Your task to perform on an android device: Open the Play Movies app and select the watchlist tab. Image 0: 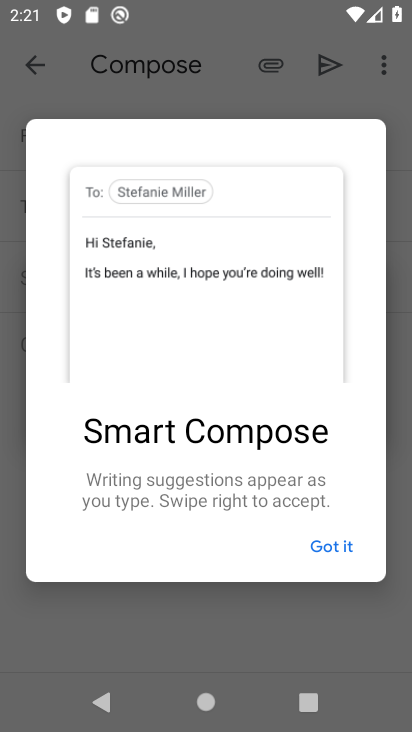
Step 0: press back button
Your task to perform on an android device: Open the Play Movies app and select the watchlist tab. Image 1: 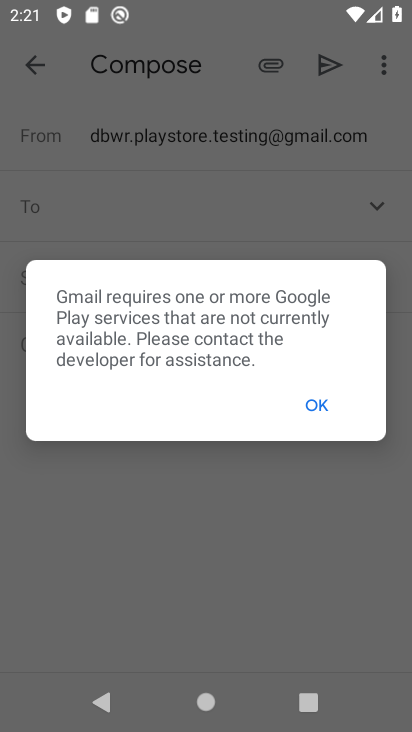
Step 1: press back button
Your task to perform on an android device: Open the Play Movies app and select the watchlist tab. Image 2: 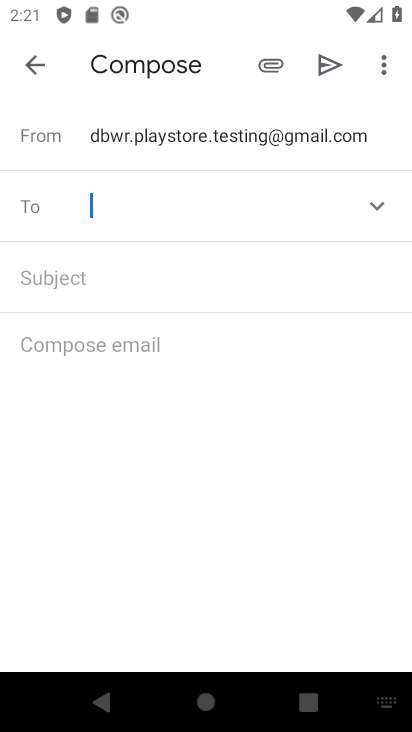
Step 2: press back button
Your task to perform on an android device: Open the Play Movies app and select the watchlist tab. Image 3: 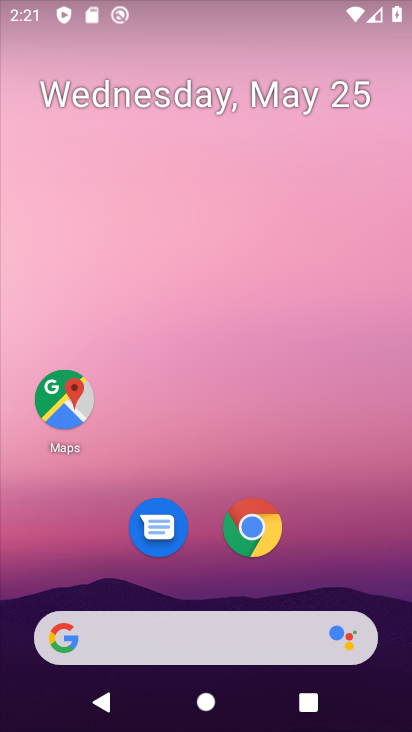
Step 3: drag from (279, 593) to (352, 0)
Your task to perform on an android device: Open the Play Movies app and select the watchlist tab. Image 4: 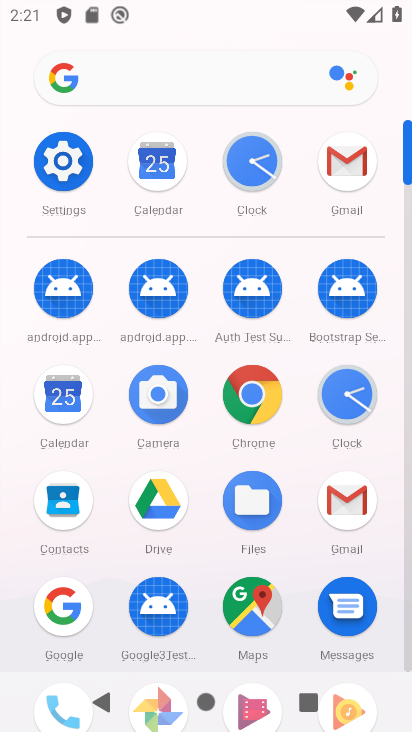
Step 4: drag from (231, 587) to (287, 86)
Your task to perform on an android device: Open the Play Movies app and select the watchlist tab. Image 5: 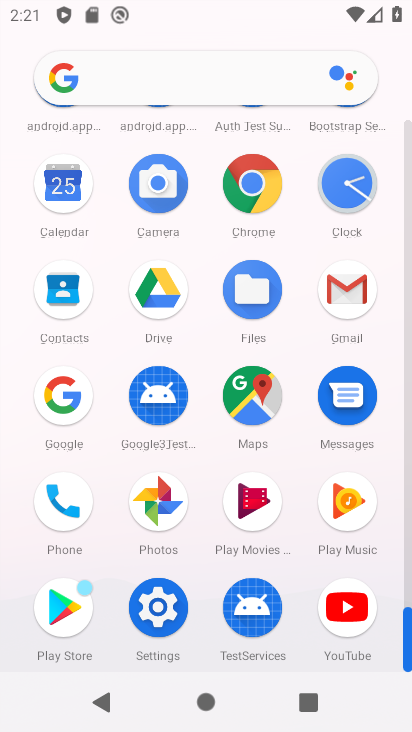
Step 5: click (246, 505)
Your task to perform on an android device: Open the Play Movies app and select the watchlist tab. Image 6: 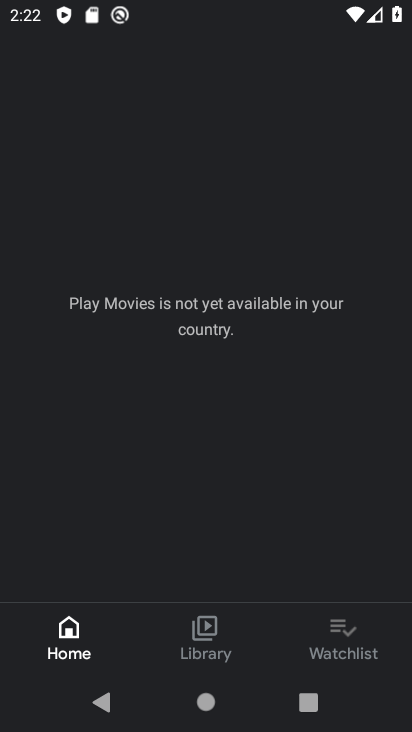
Step 6: click (347, 640)
Your task to perform on an android device: Open the Play Movies app and select the watchlist tab. Image 7: 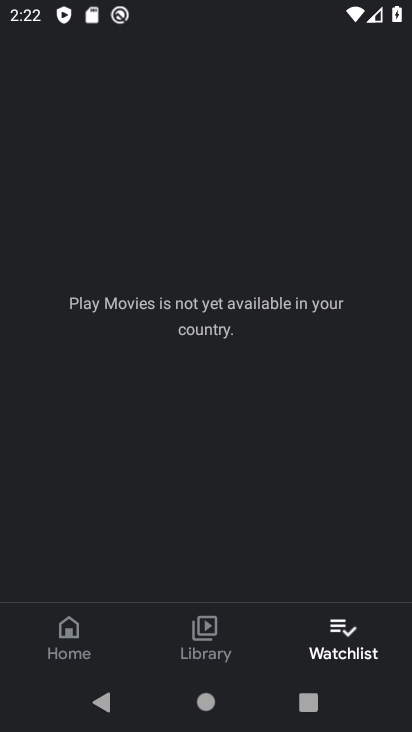
Step 7: task complete